Your task to perform on an android device: open app "Roku - Official Remote Control" (install if not already installed), go to login, and select forgot password Image 0: 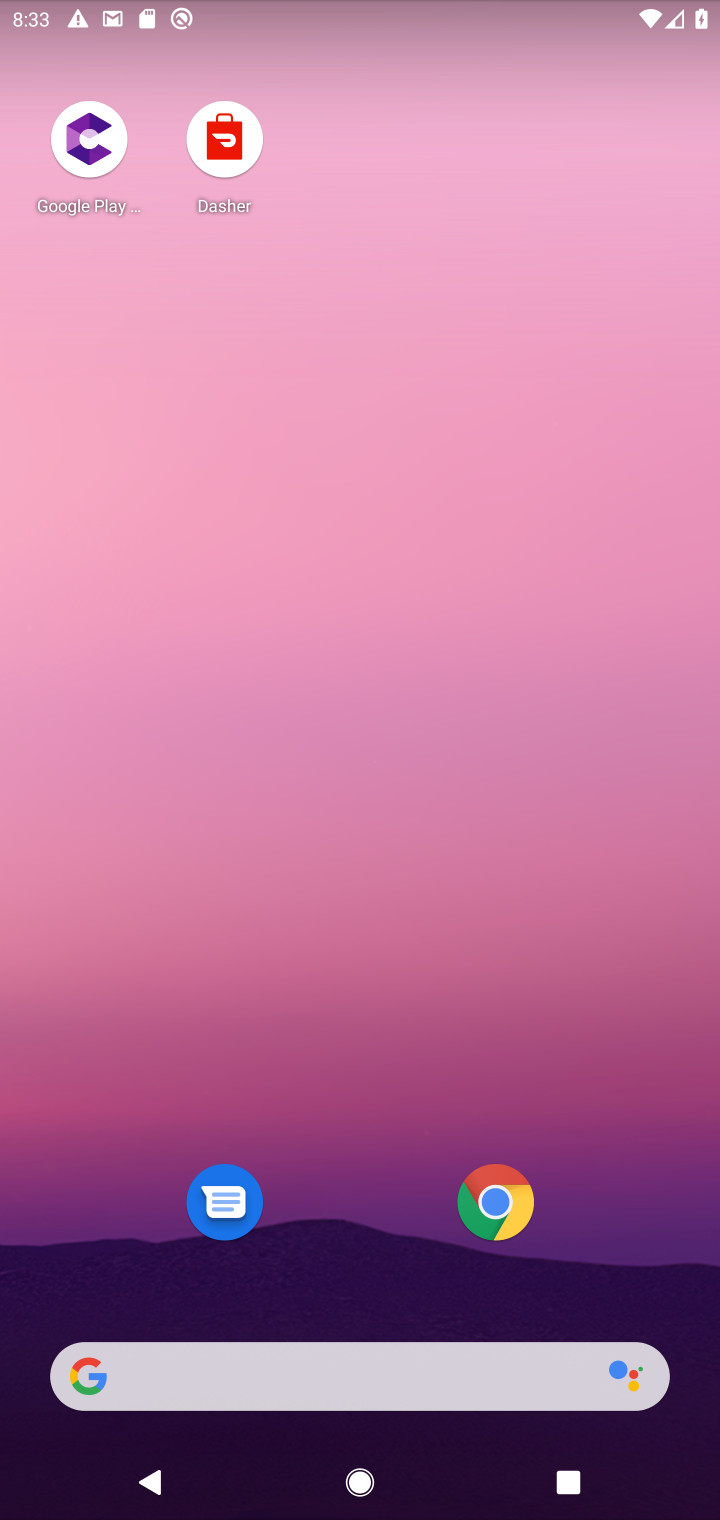
Step 0: drag from (381, 1096) to (415, 436)
Your task to perform on an android device: open app "Roku - Official Remote Control" (install if not already installed), go to login, and select forgot password Image 1: 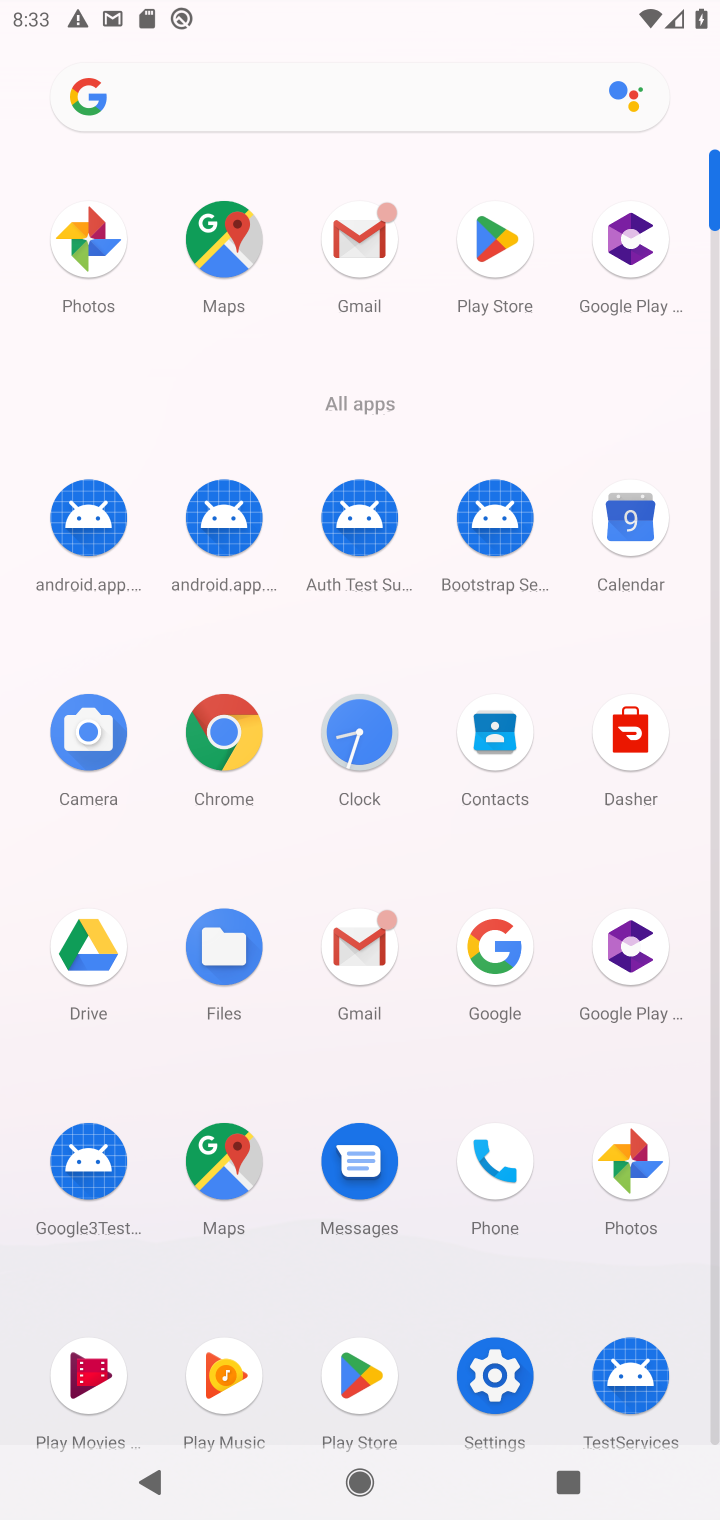
Step 1: click (370, 1376)
Your task to perform on an android device: open app "Roku - Official Remote Control" (install if not already installed), go to login, and select forgot password Image 2: 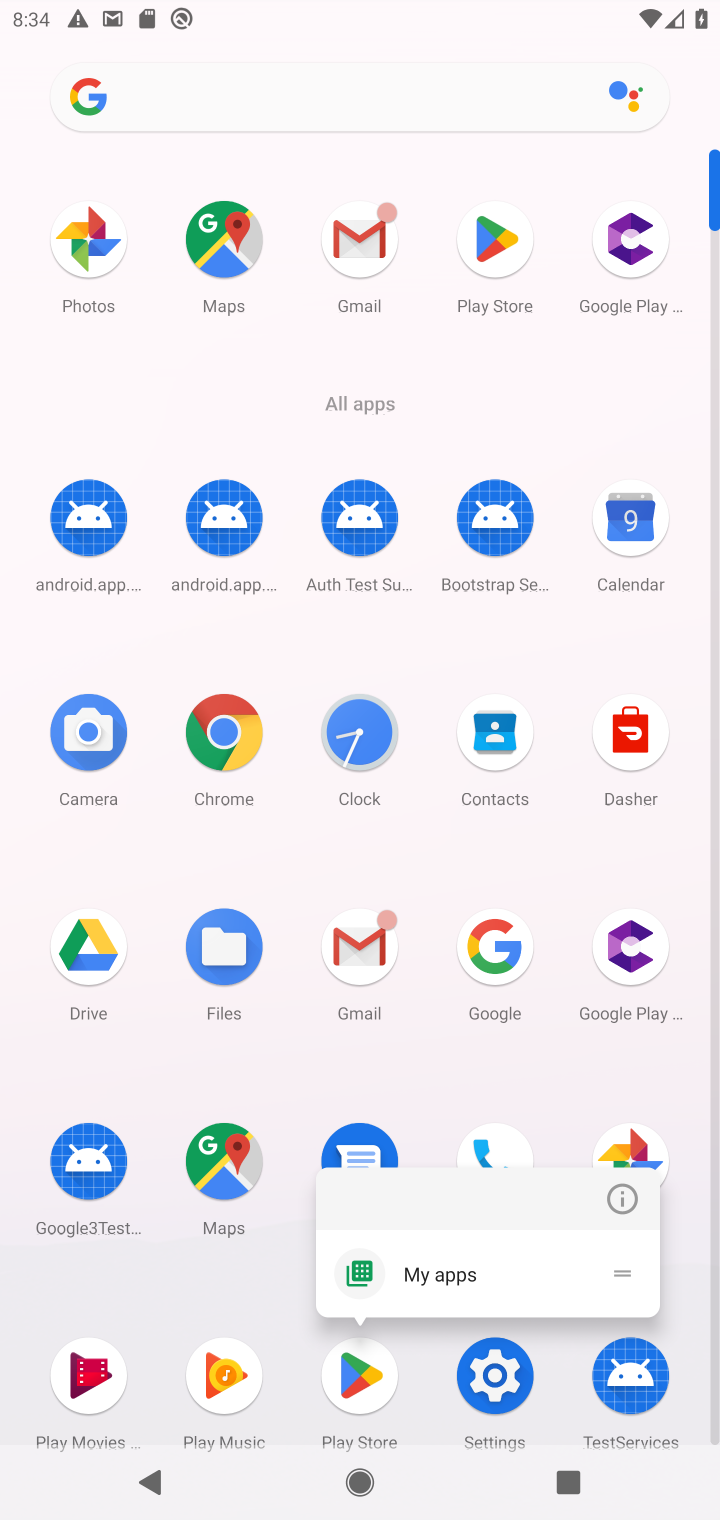
Step 2: click (360, 1373)
Your task to perform on an android device: open app "Roku - Official Remote Control" (install if not already installed), go to login, and select forgot password Image 3: 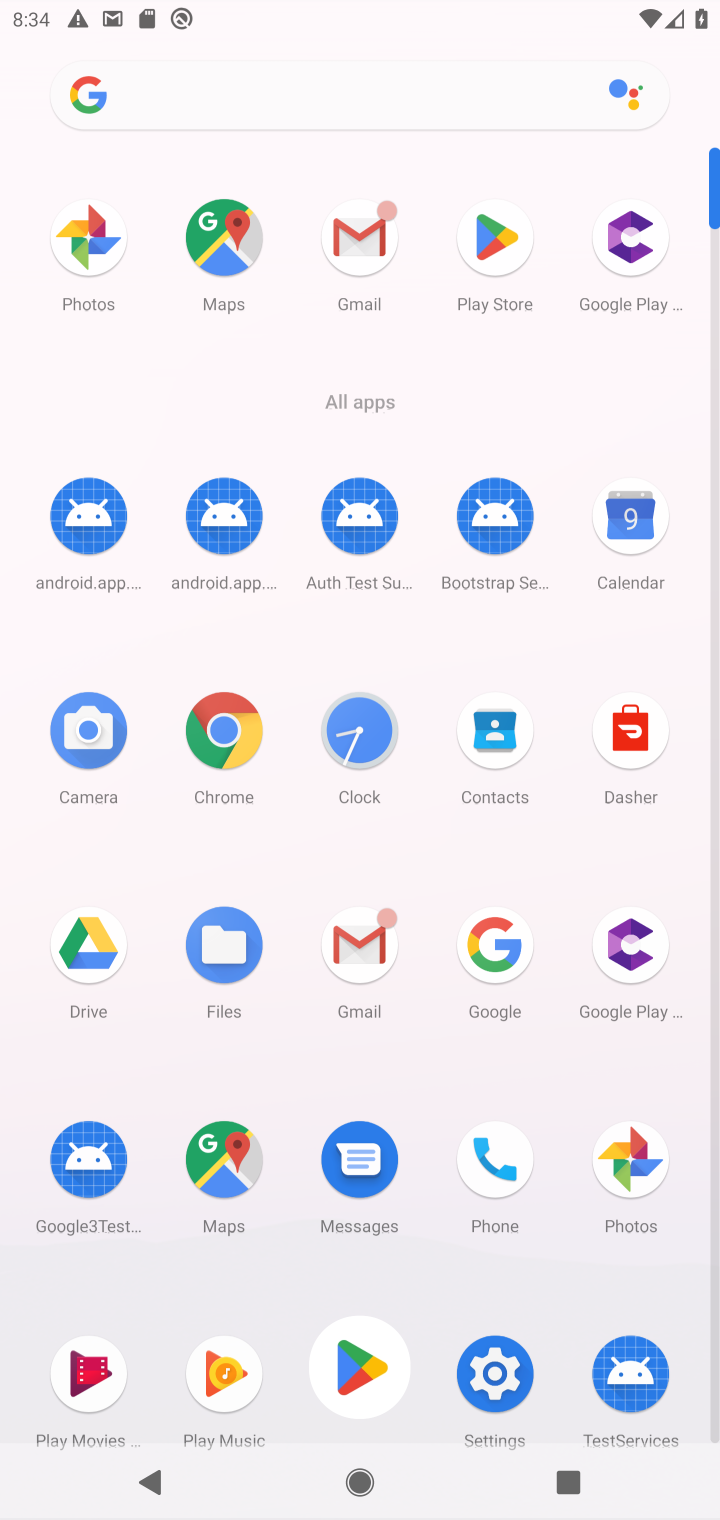
Step 3: click (370, 1387)
Your task to perform on an android device: open app "Roku - Official Remote Control" (install if not already installed), go to login, and select forgot password Image 4: 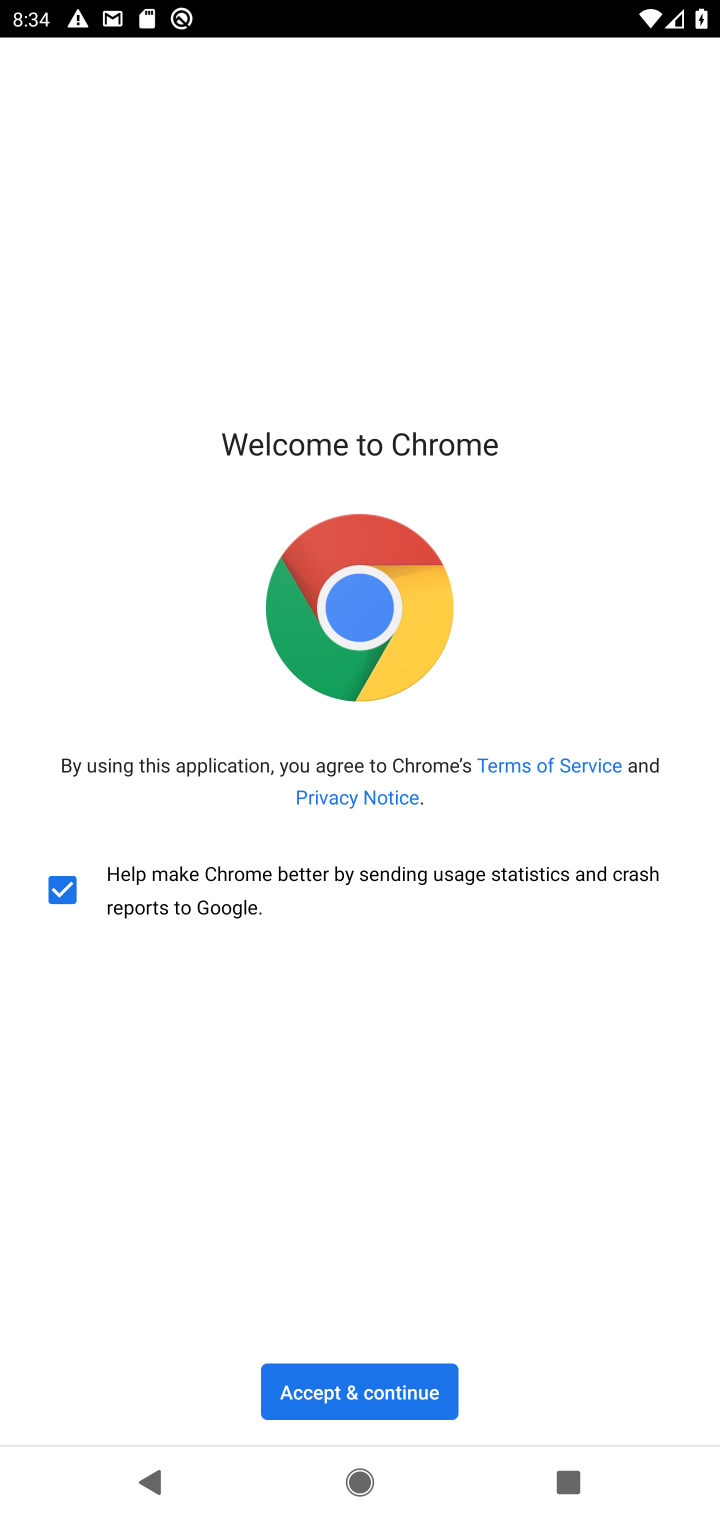
Step 4: press back button
Your task to perform on an android device: open app "Roku - Official Remote Control" (install if not already installed), go to login, and select forgot password Image 5: 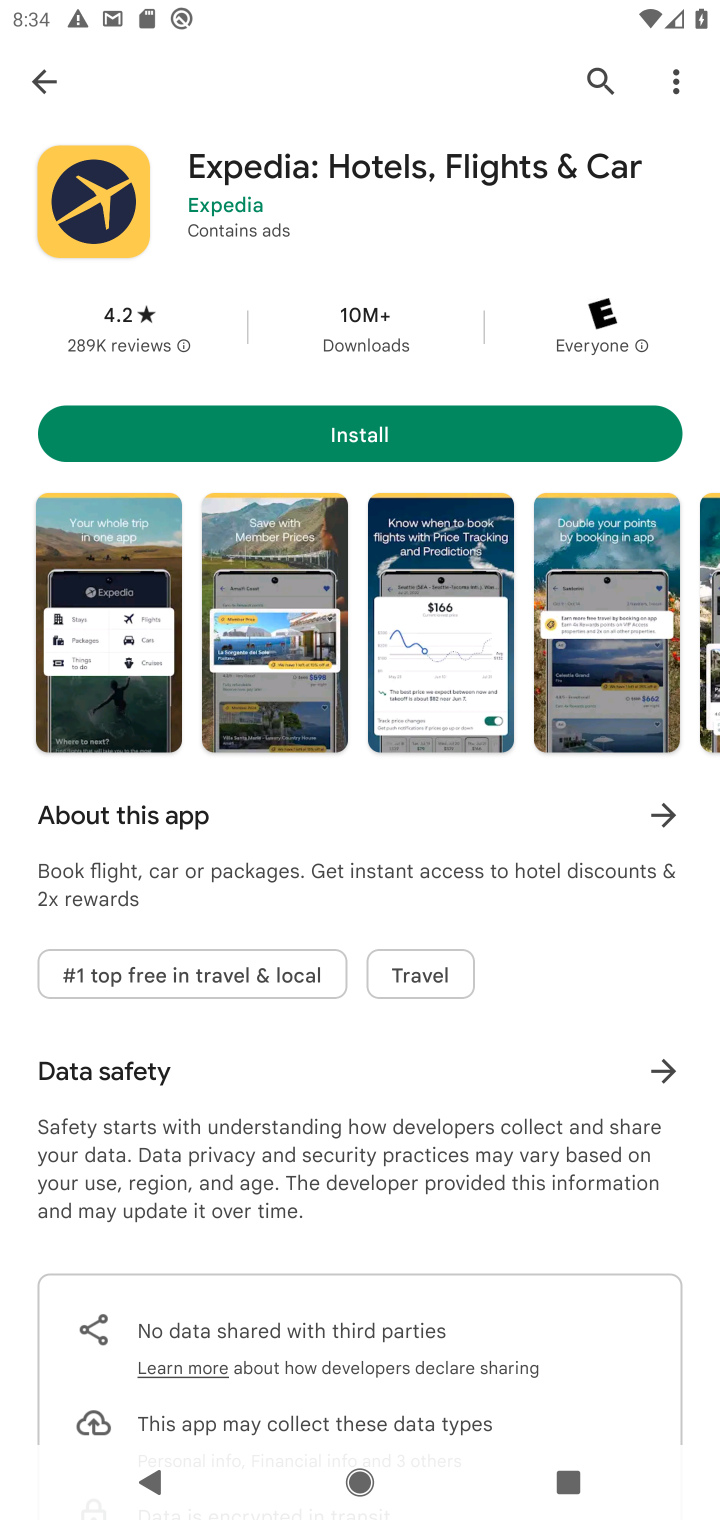
Step 5: press back button
Your task to perform on an android device: open app "Roku - Official Remote Control" (install if not already installed), go to login, and select forgot password Image 6: 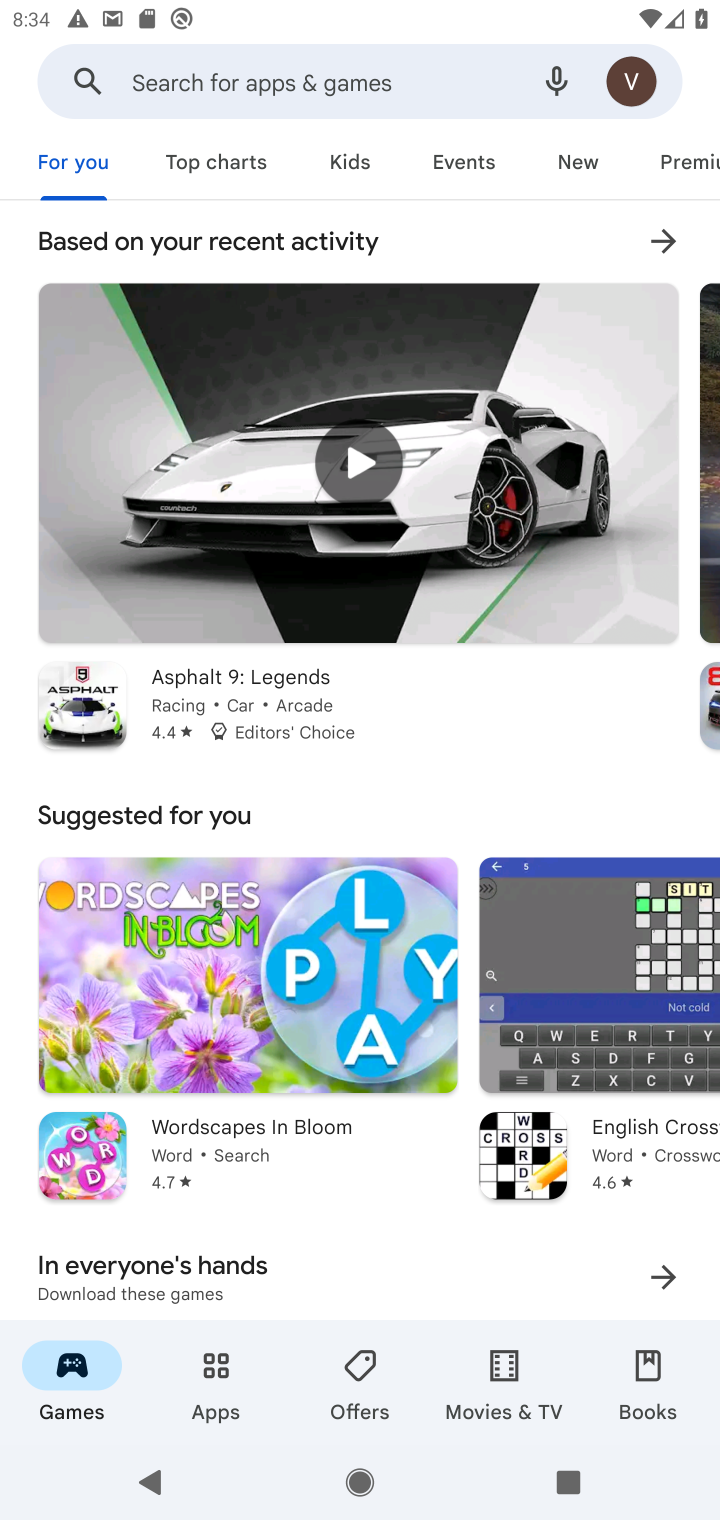
Step 6: click (339, 78)
Your task to perform on an android device: open app "Roku - Official Remote Control" (install if not already installed), go to login, and select forgot password Image 7: 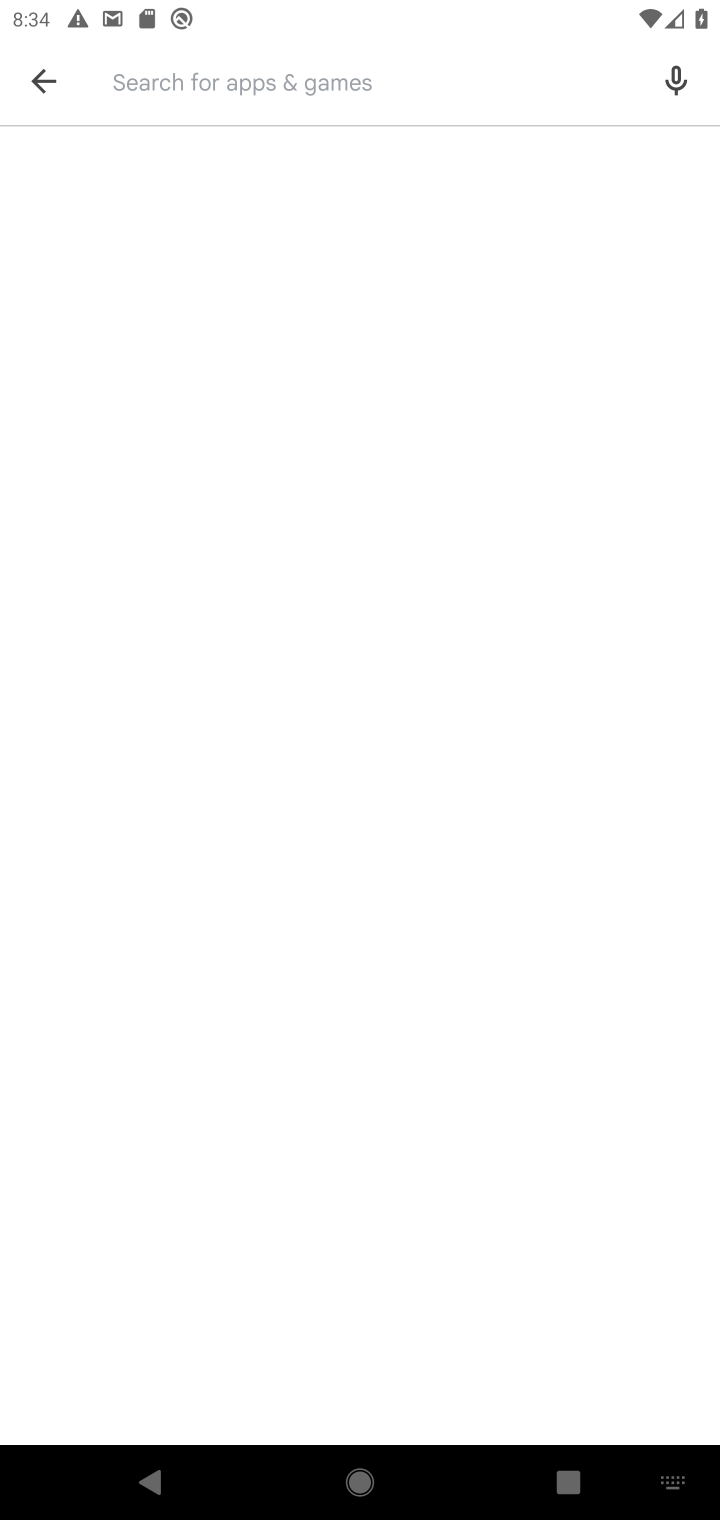
Step 7: type "Roku - Official Remote Control"
Your task to perform on an android device: open app "Roku - Official Remote Control" (install if not already installed), go to login, and select forgot password Image 8: 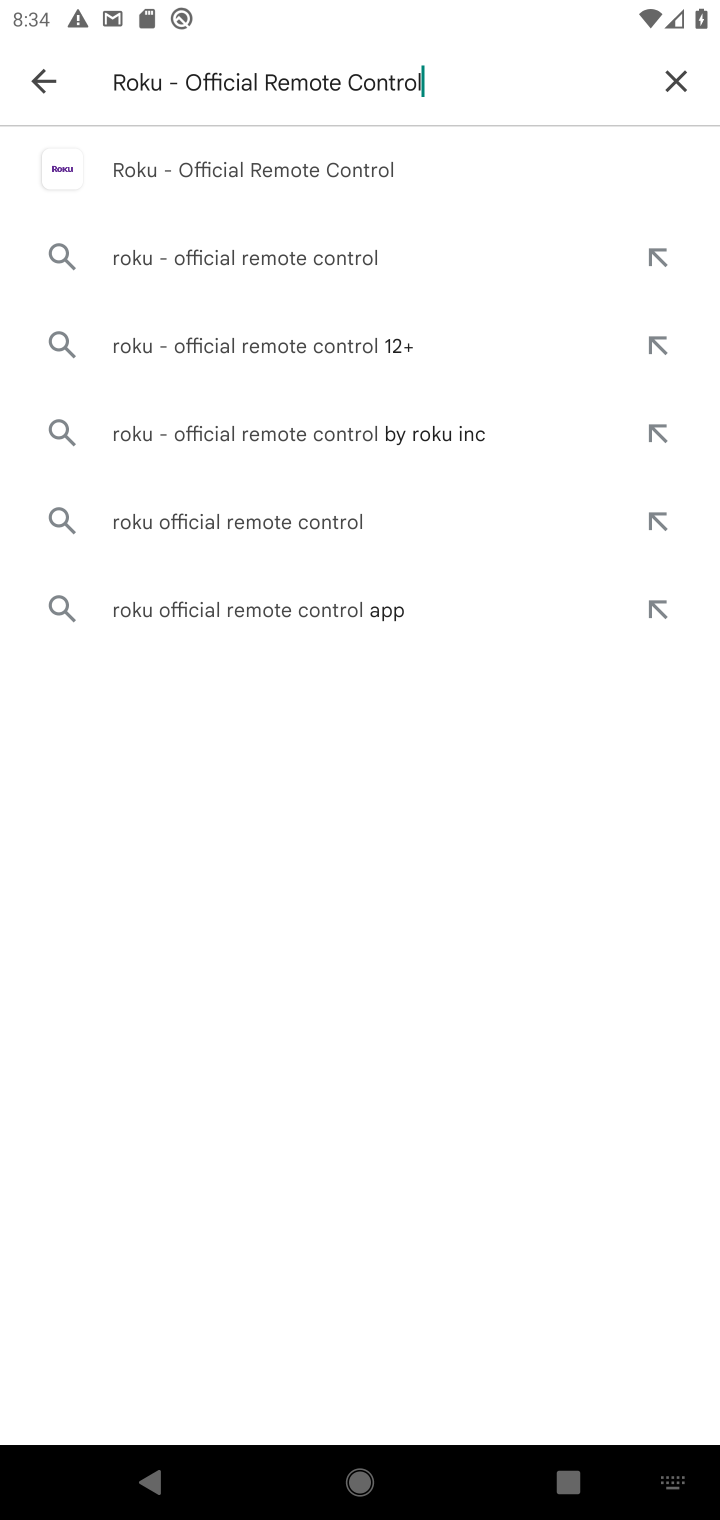
Step 8: click (316, 180)
Your task to perform on an android device: open app "Roku - Official Remote Control" (install if not already installed), go to login, and select forgot password Image 9: 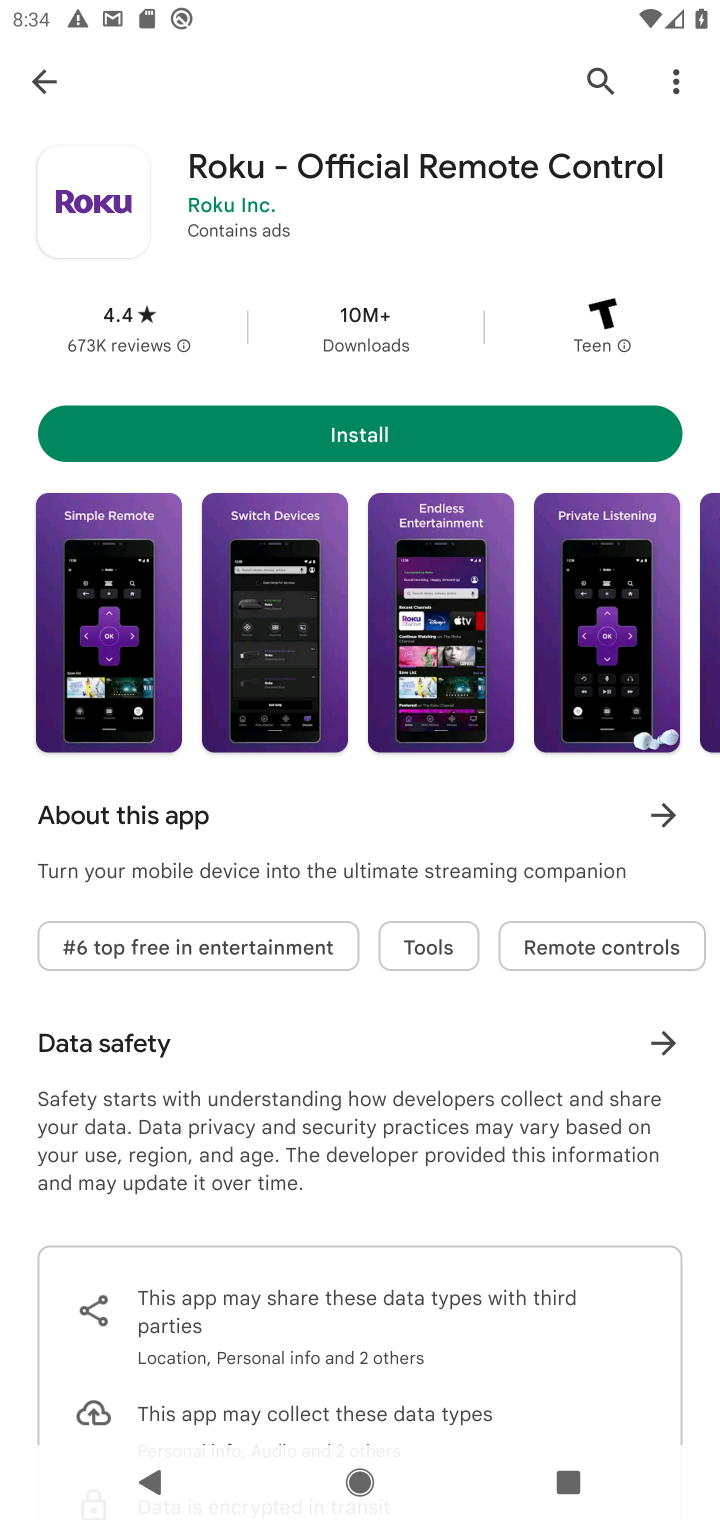
Step 9: click (359, 447)
Your task to perform on an android device: open app "Roku - Official Remote Control" (install if not already installed), go to login, and select forgot password Image 10: 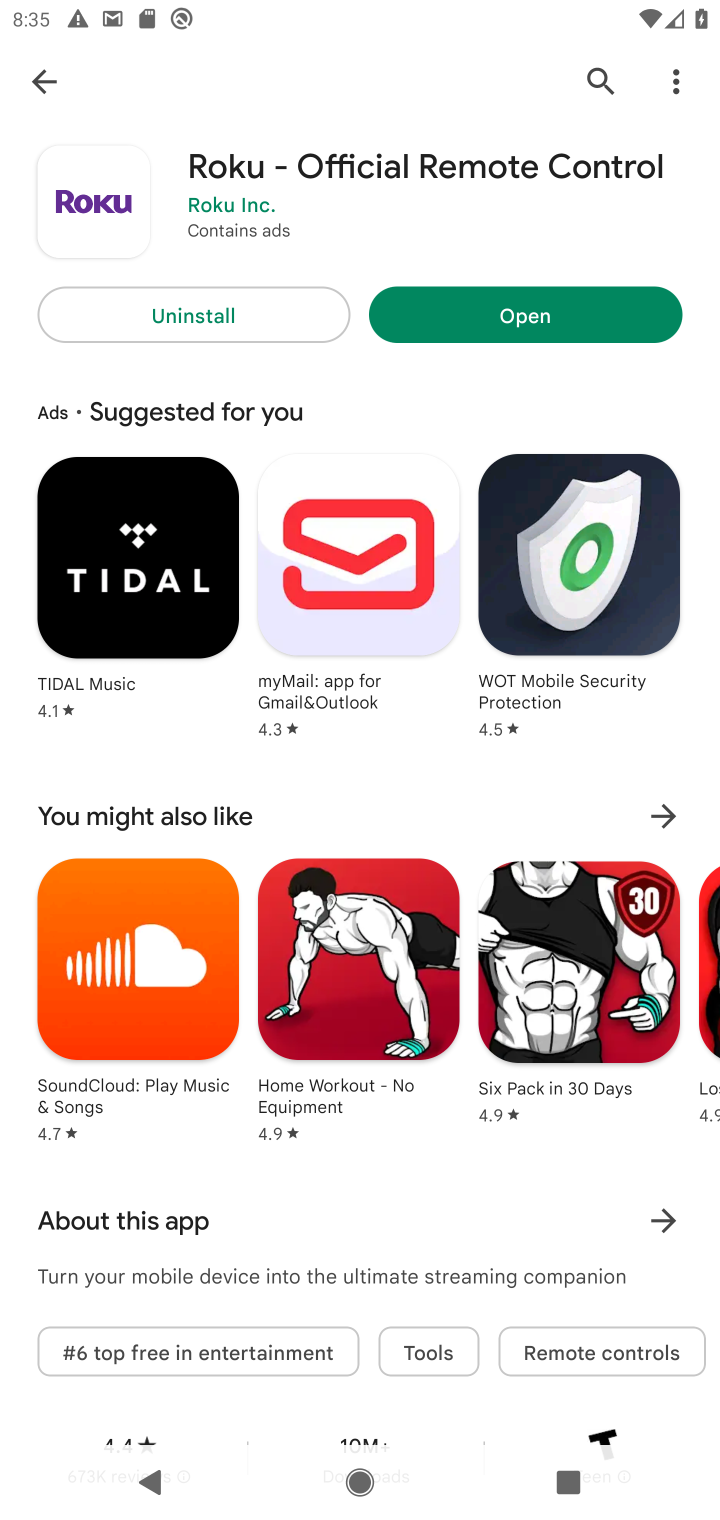
Step 10: click (607, 307)
Your task to perform on an android device: open app "Roku - Official Remote Control" (install if not already installed), go to login, and select forgot password Image 11: 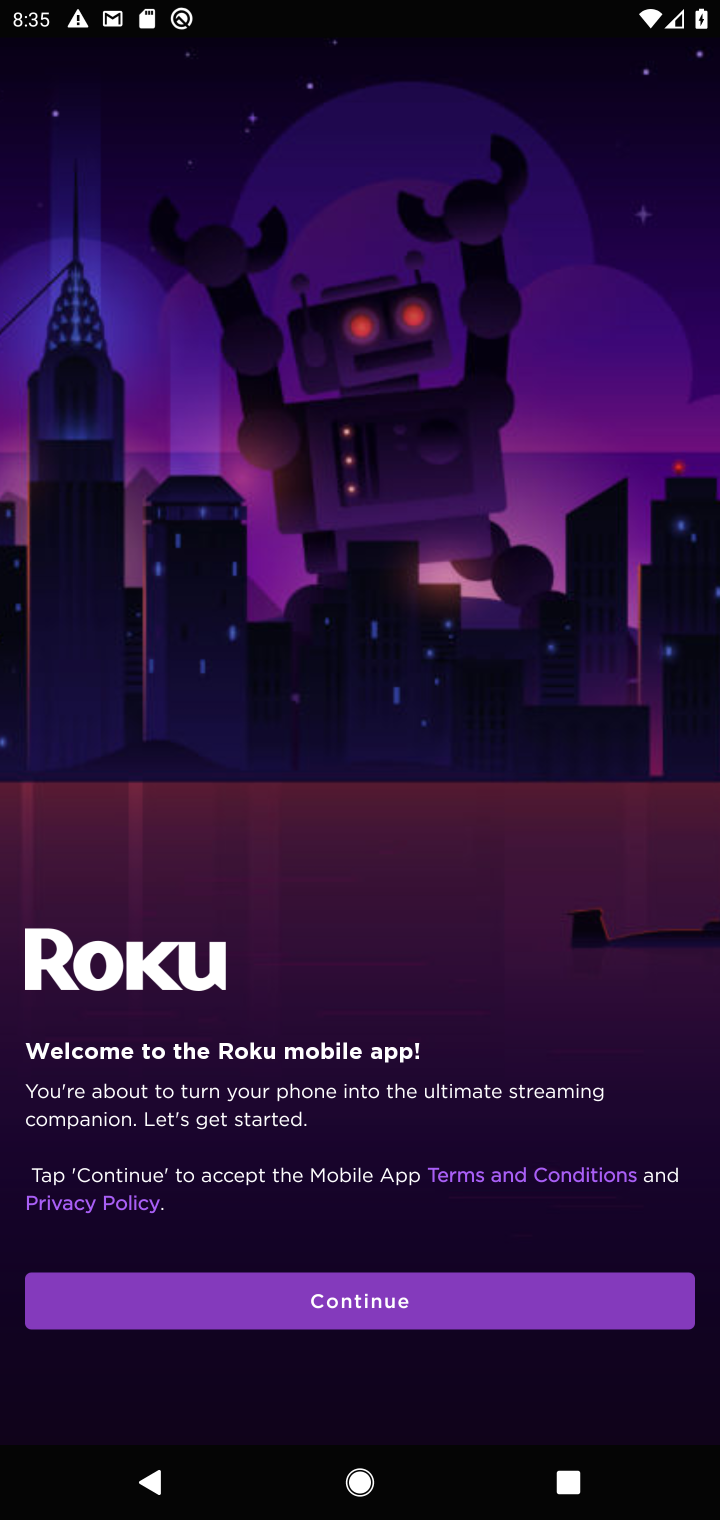
Step 11: click (382, 1312)
Your task to perform on an android device: open app "Roku - Official Remote Control" (install if not already installed), go to login, and select forgot password Image 12: 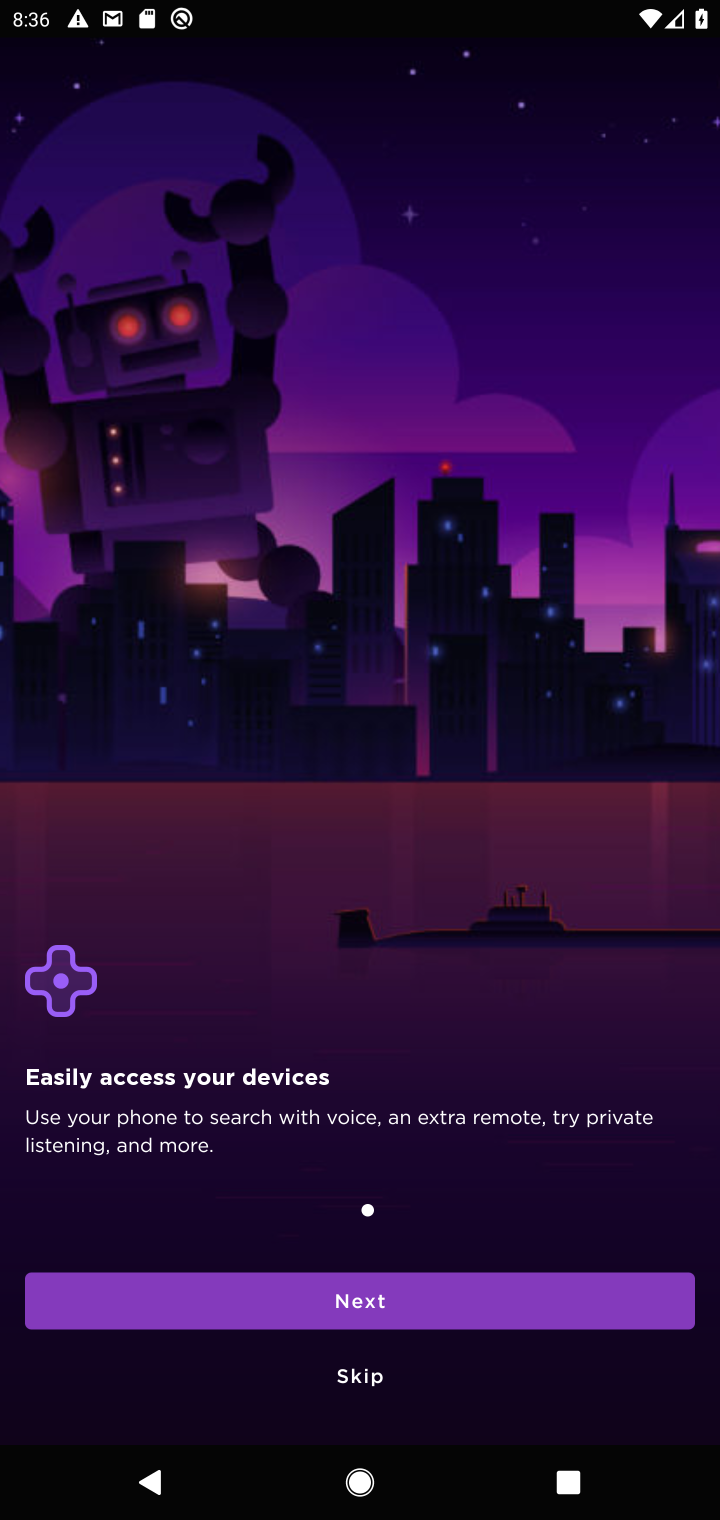
Step 12: click (382, 1312)
Your task to perform on an android device: open app "Roku - Official Remote Control" (install if not already installed), go to login, and select forgot password Image 13: 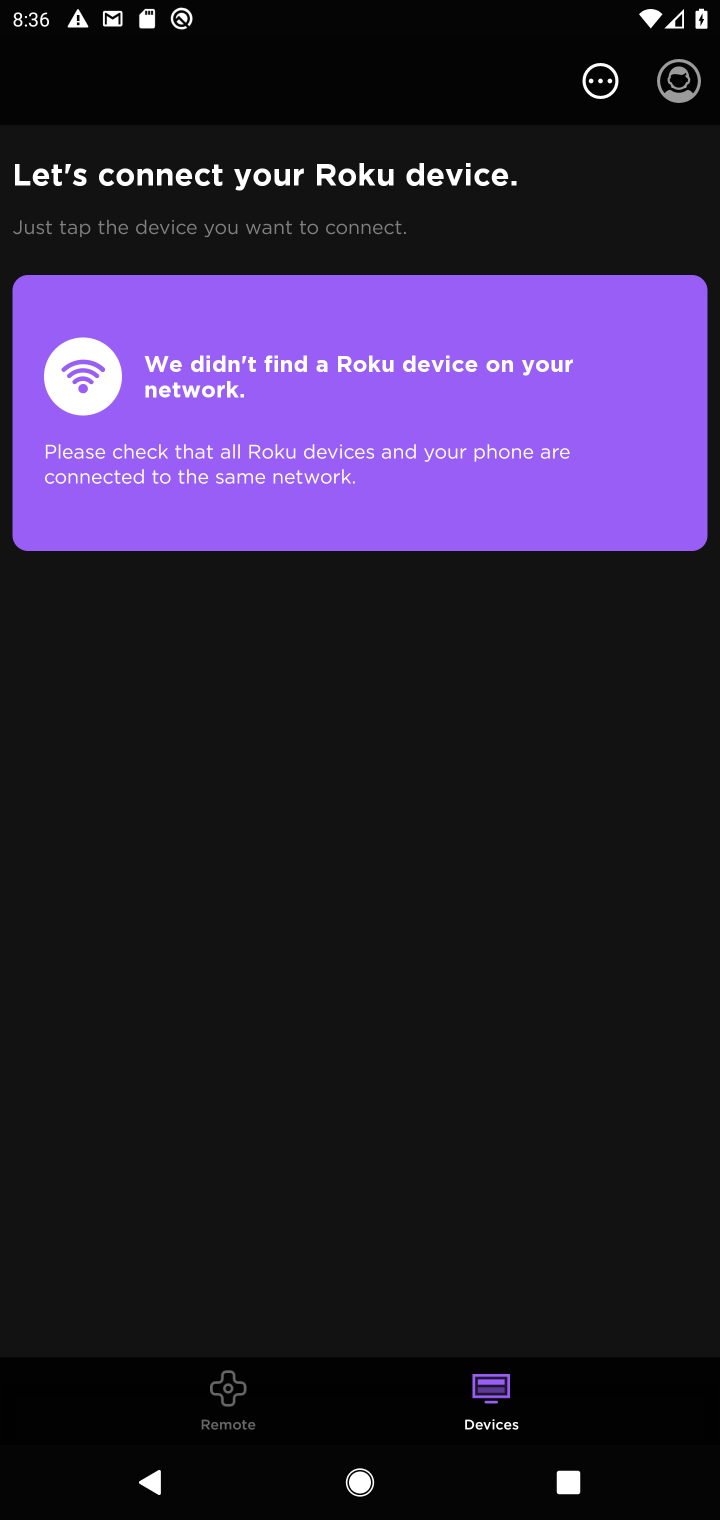
Step 13: click (690, 73)
Your task to perform on an android device: open app "Roku - Official Remote Control" (install if not already installed), go to login, and select forgot password Image 14: 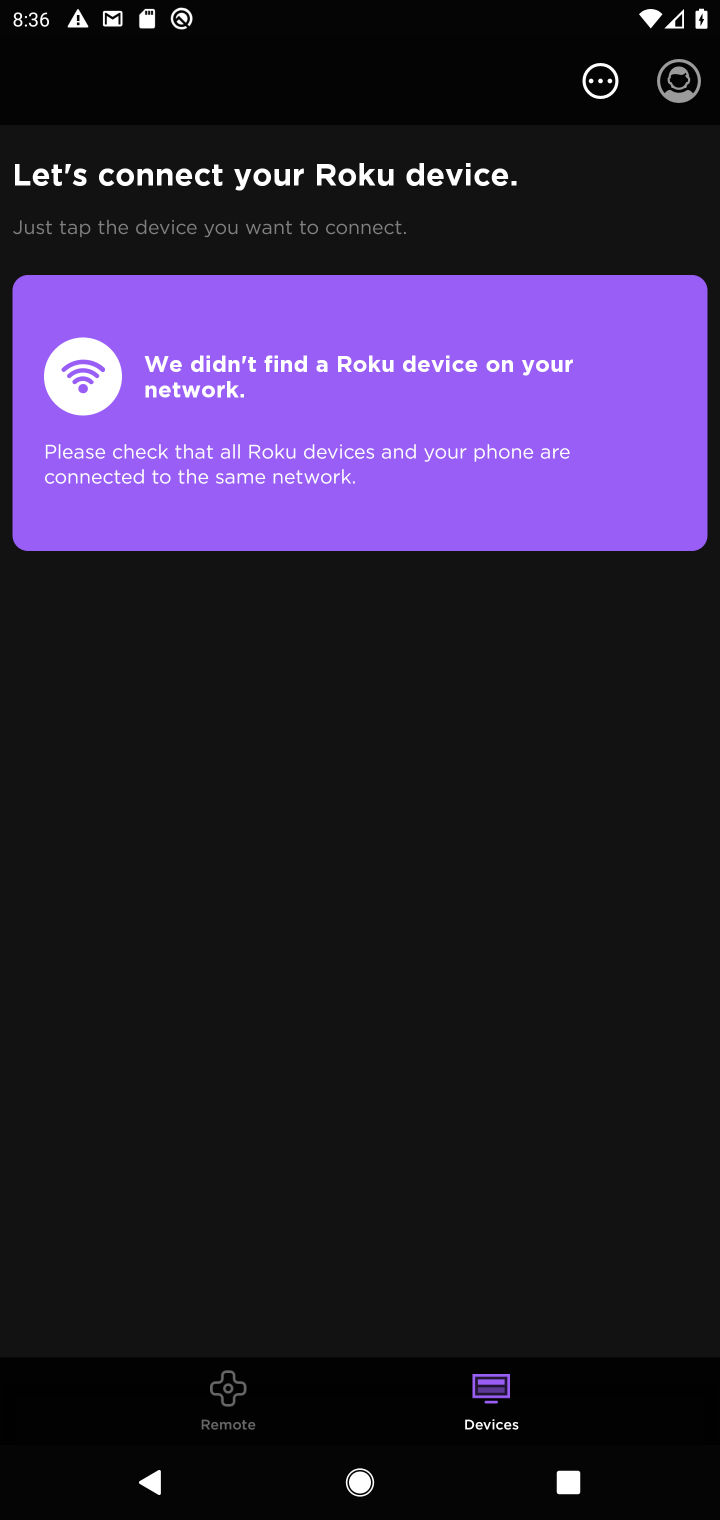
Step 14: click (681, 93)
Your task to perform on an android device: open app "Roku - Official Remote Control" (install if not already installed), go to login, and select forgot password Image 15: 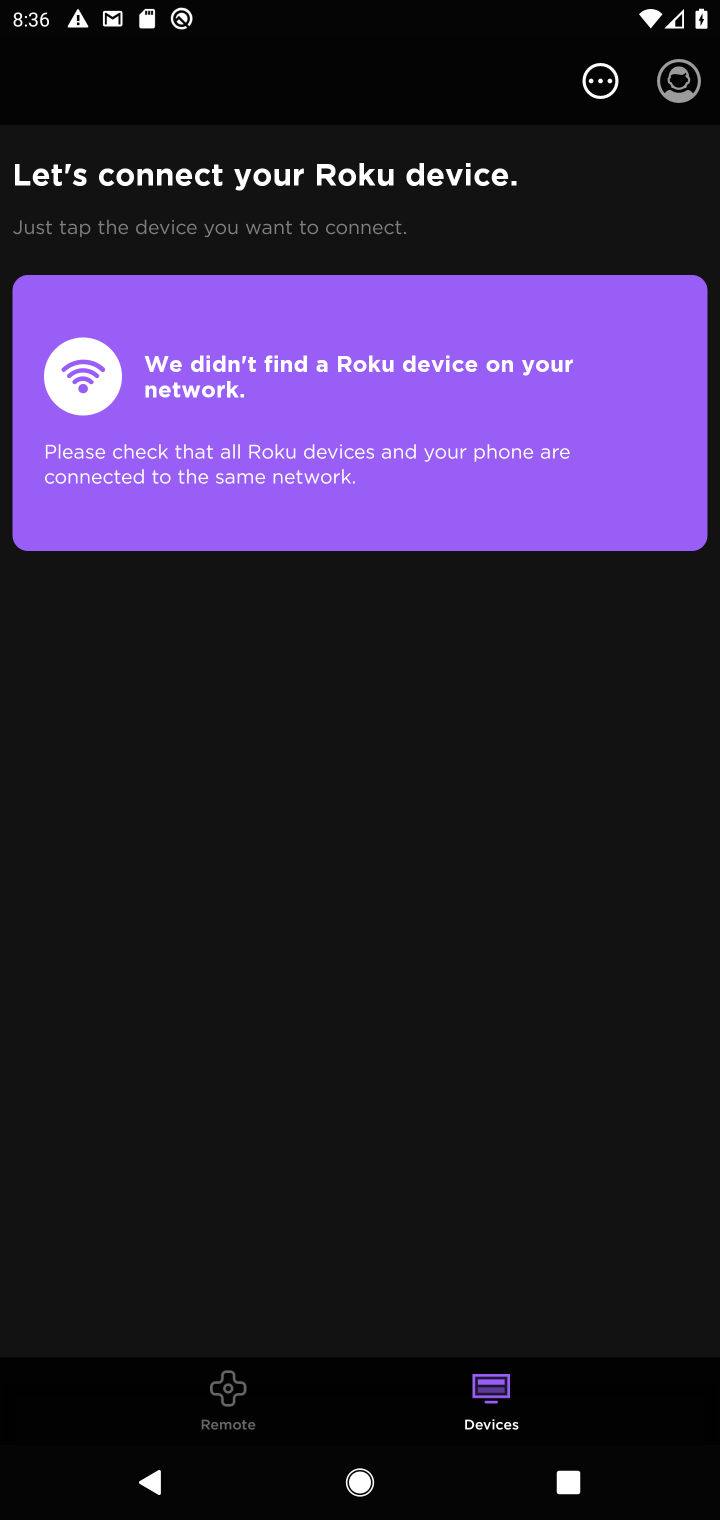
Step 15: click (600, 87)
Your task to perform on an android device: open app "Roku - Official Remote Control" (install if not already installed), go to login, and select forgot password Image 16: 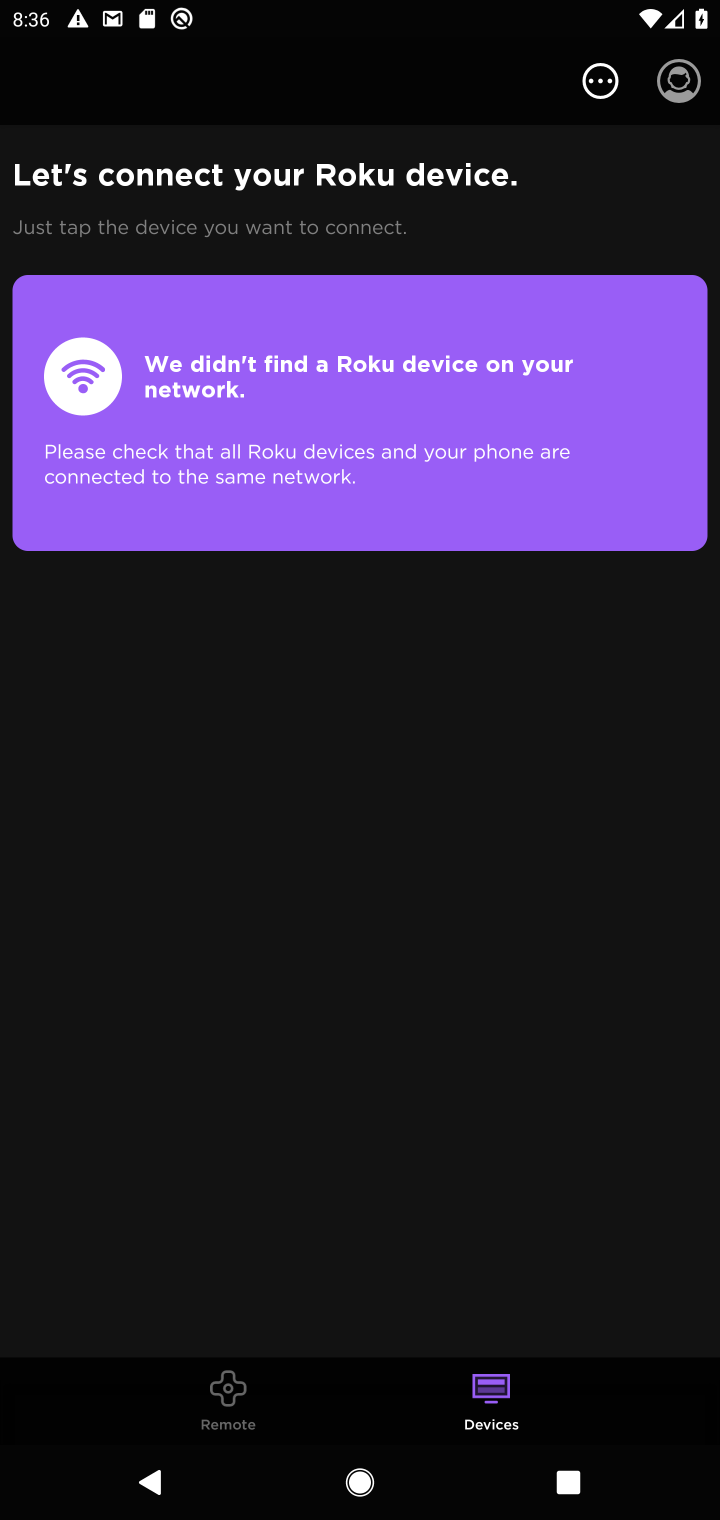
Step 16: click (603, 94)
Your task to perform on an android device: open app "Roku - Official Remote Control" (install if not already installed), go to login, and select forgot password Image 17: 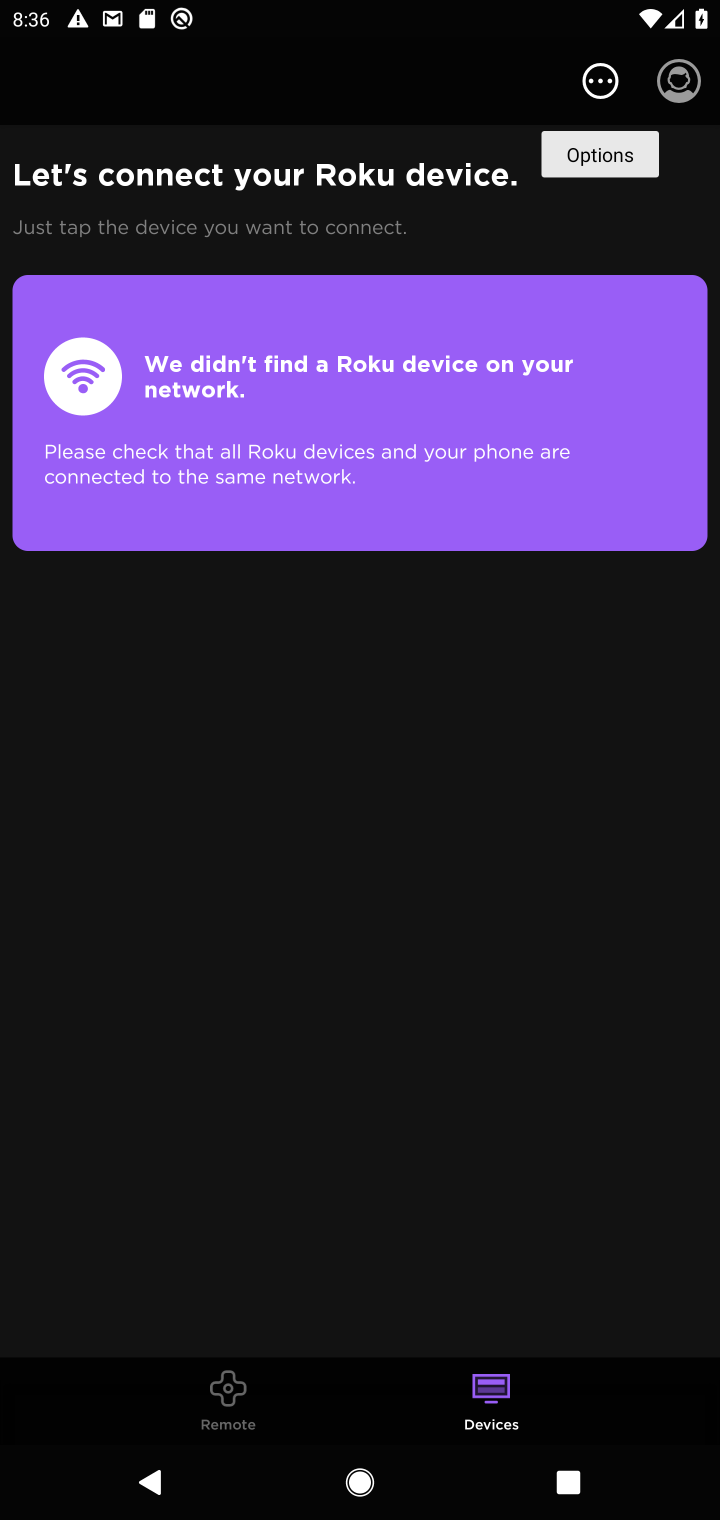
Step 17: click (685, 93)
Your task to perform on an android device: open app "Roku - Official Remote Control" (install if not already installed), go to login, and select forgot password Image 18: 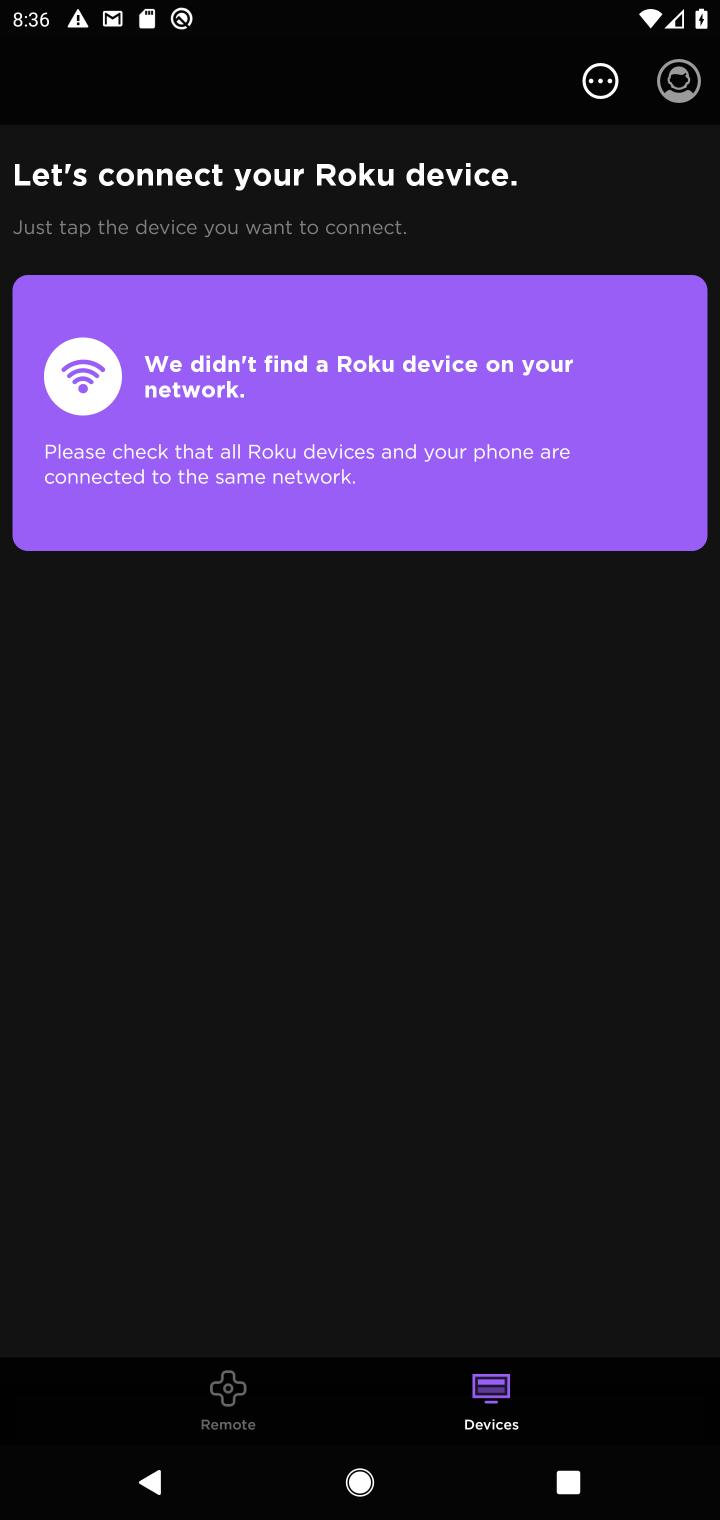
Step 18: click (685, 93)
Your task to perform on an android device: open app "Roku - Official Remote Control" (install if not already installed), go to login, and select forgot password Image 19: 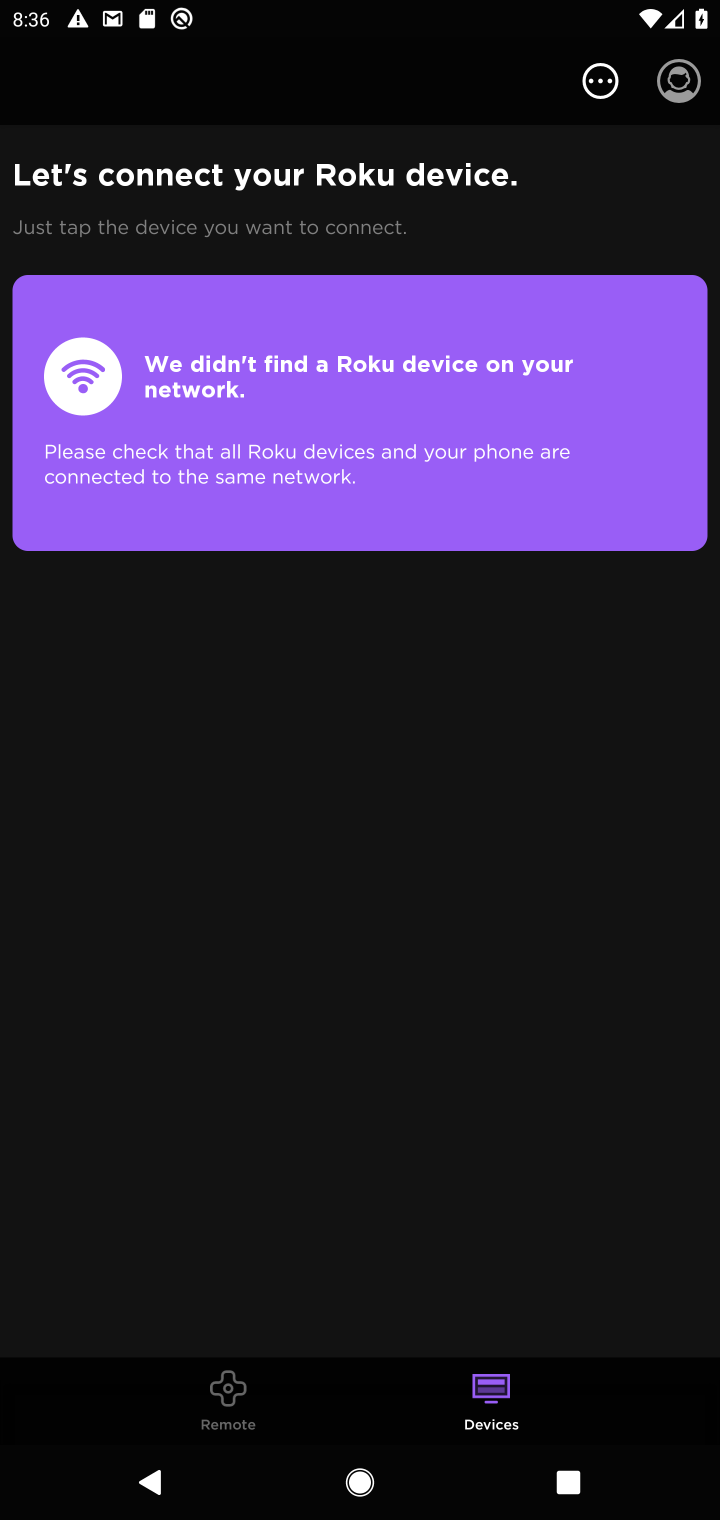
Step 19: click (685, 93)
Your task to perform on an android device: open app "Roku - Official Remote Control" (install if not already installed), go to login, and select forgot password Image 20: 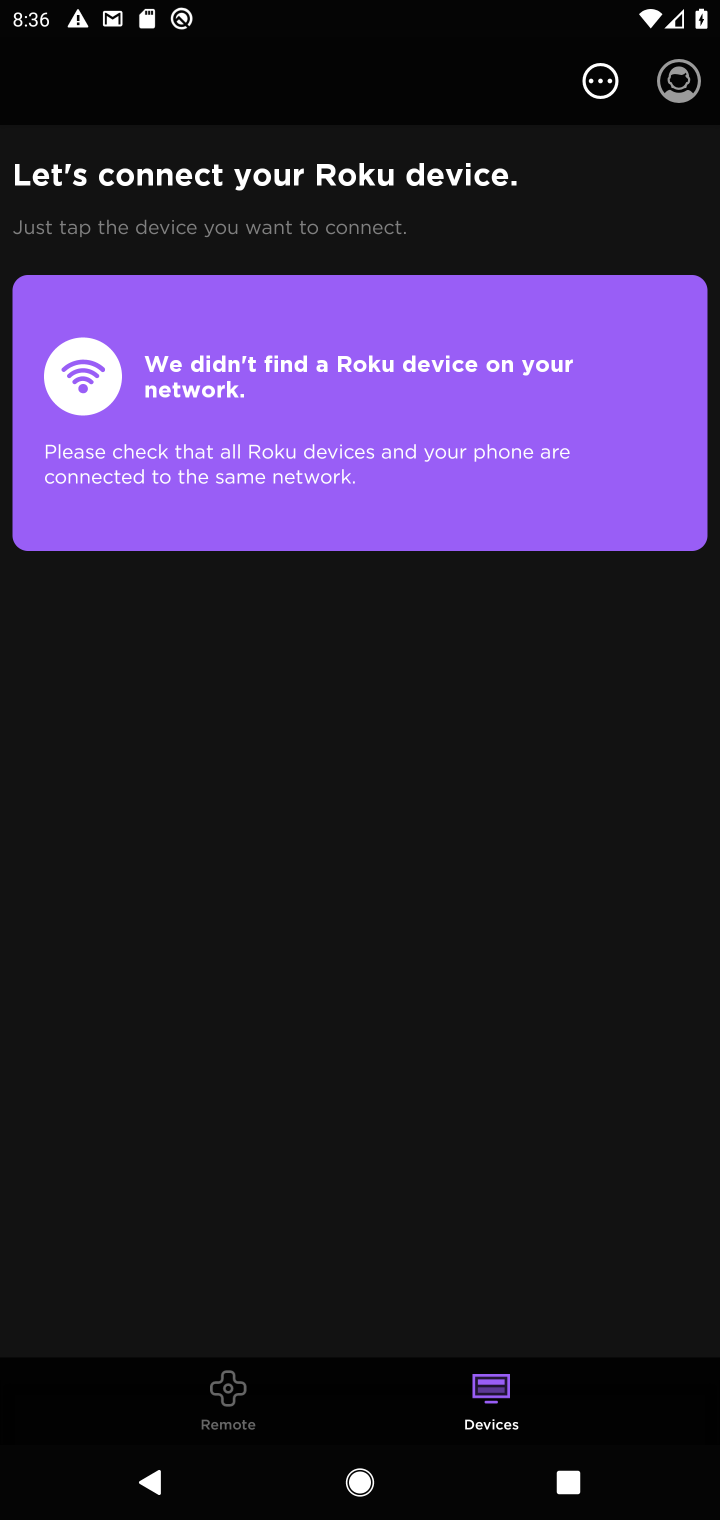
Step 20: click (678, 86)
Your task to perform on an android device: open app "Roku - Official Remote Control" (install if not already installed), go to login, and select forgot password Image 21: 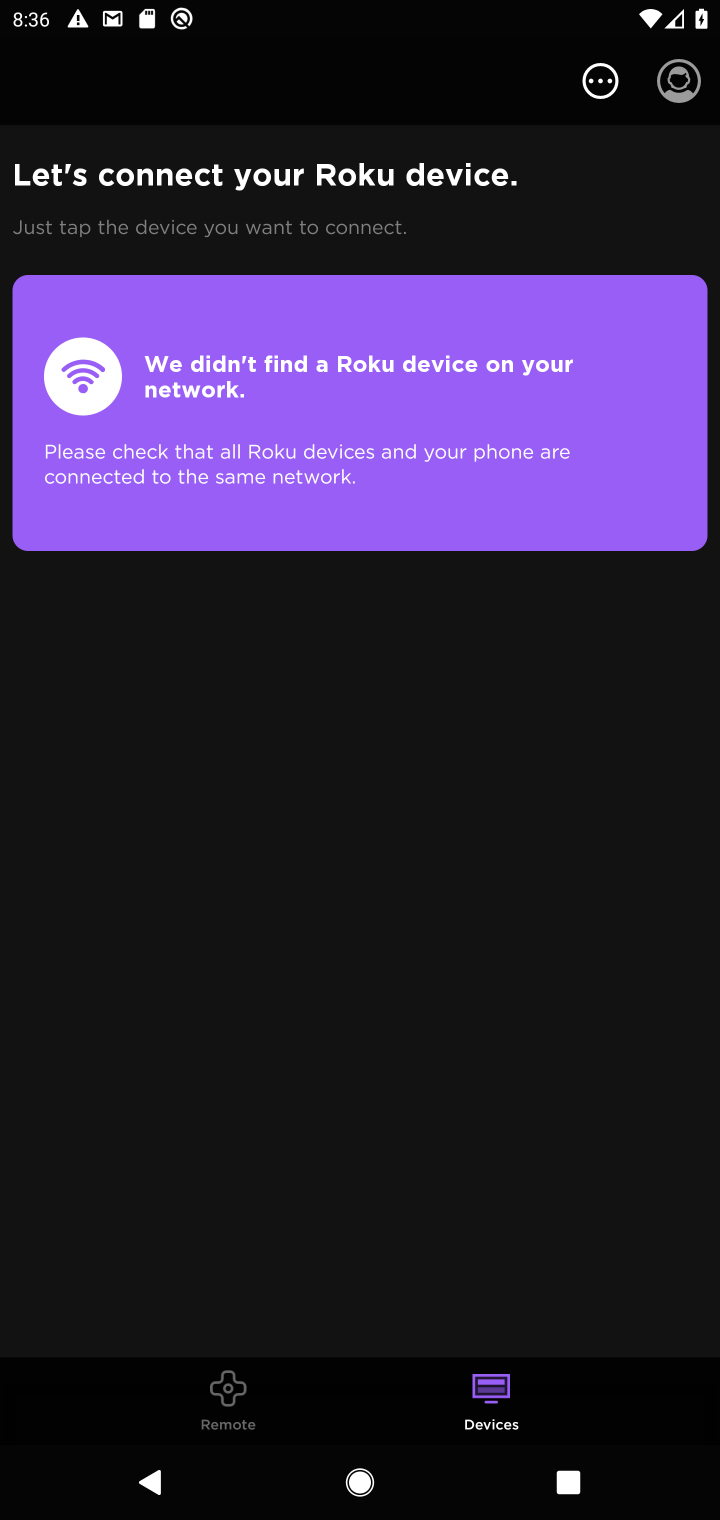
Step 21: click (686, 68)
Your task to perform on an android device: open app "Roku - Official Remote Control" (install if not already installed), go to login, and select forgot password Image 22: 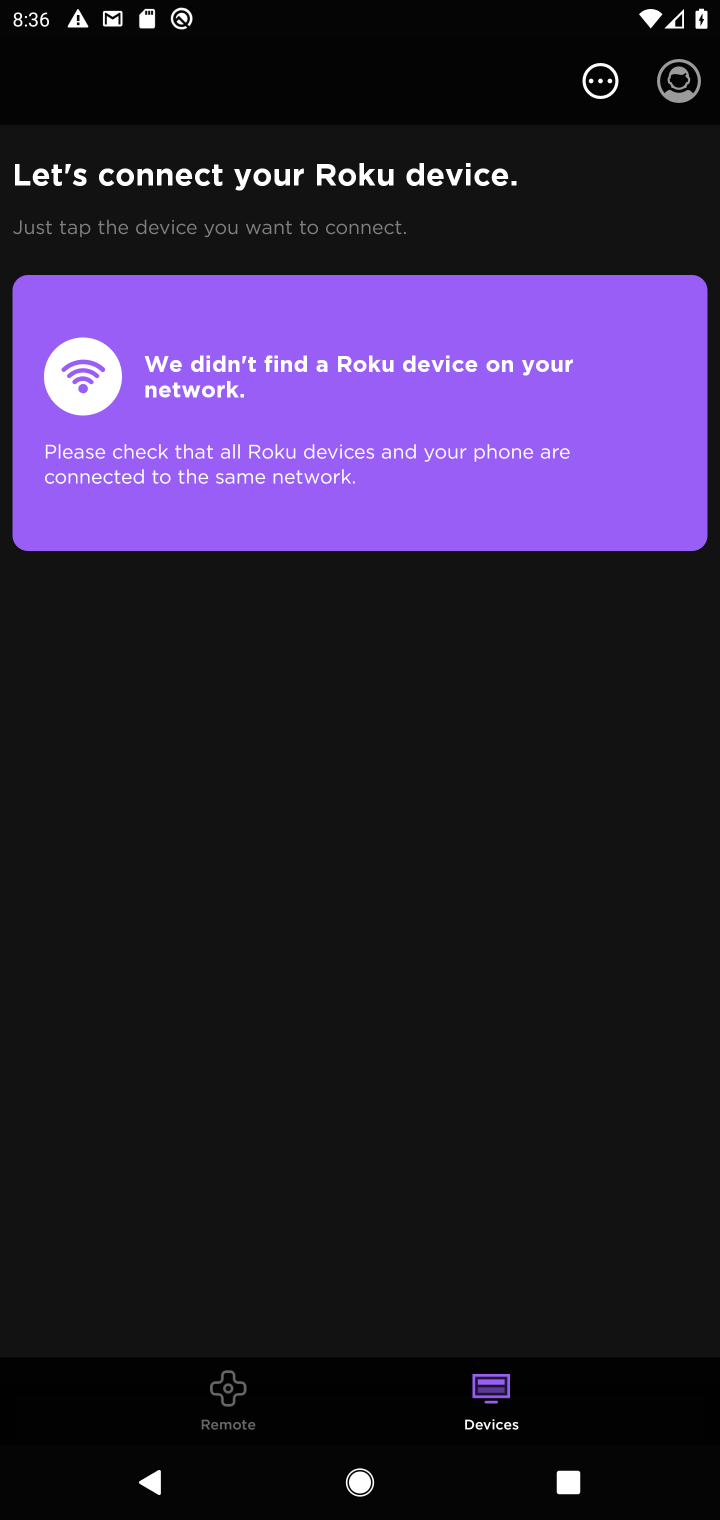
Step 22: click (682, 79)
Your task to perform on an android device: open app "Roku - Official Remote Control" (install if not already installed), go to login, and select forgot password Image 23: 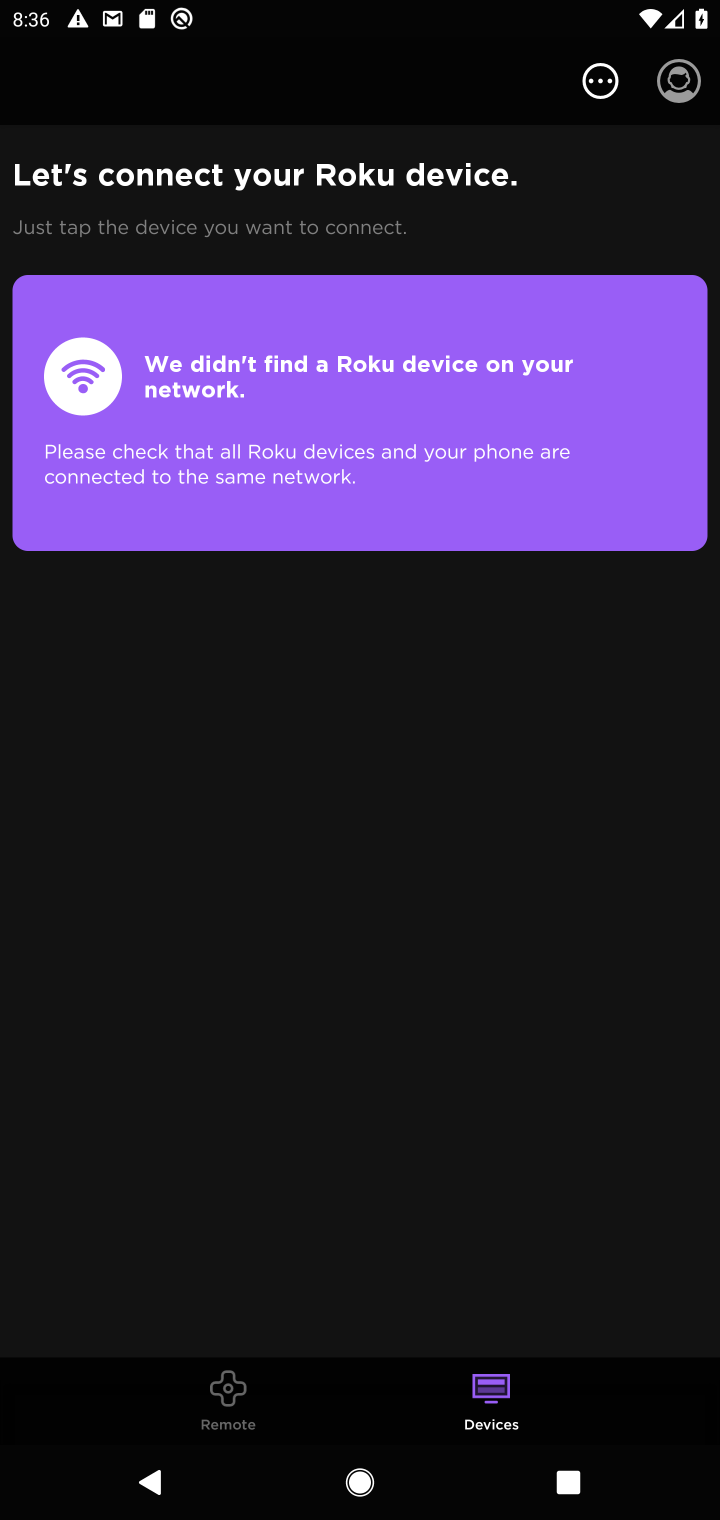
Step 23: task complete